Your task to perform on an android device: turn on javascript in the chrome app Image 0: 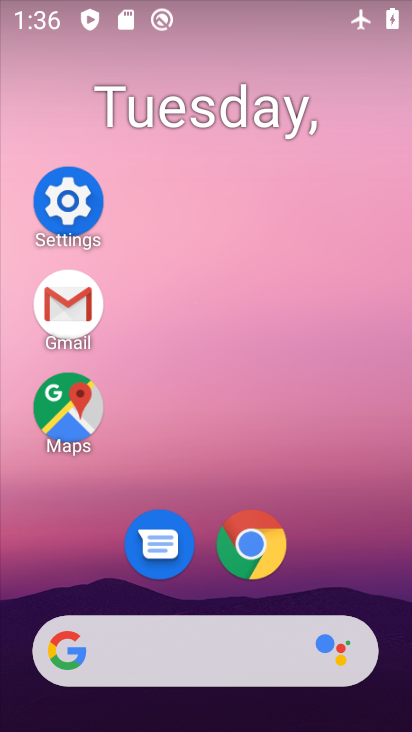
Step 0: click (270, 540)
Your task to perform on an android device: turn on javascript in the chrome app Image 1: 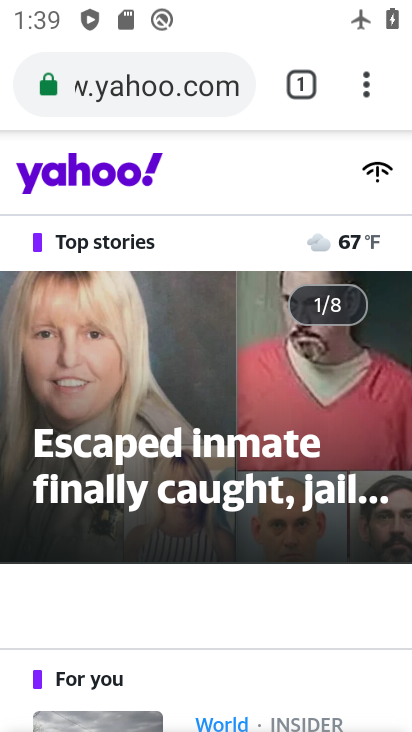
Step 1: click (360, 86)
Your task to perform on an android device: turn on javascript in the chrome app Image 2: 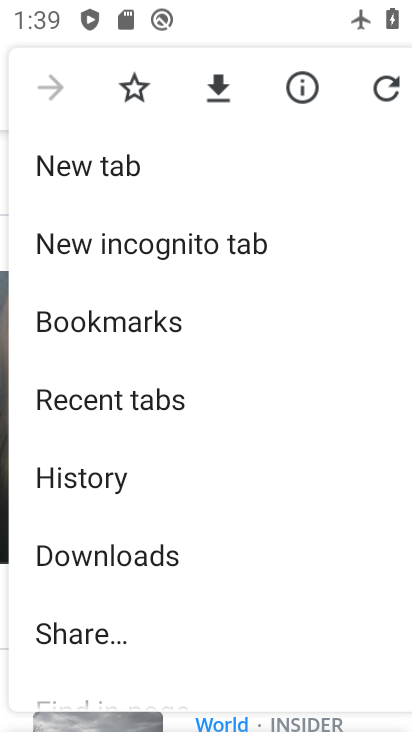
Step 2: drag from (275, 674) to (270, 196)
Your task to perform on an android device: turn on javascript in the chrome app Image 3: 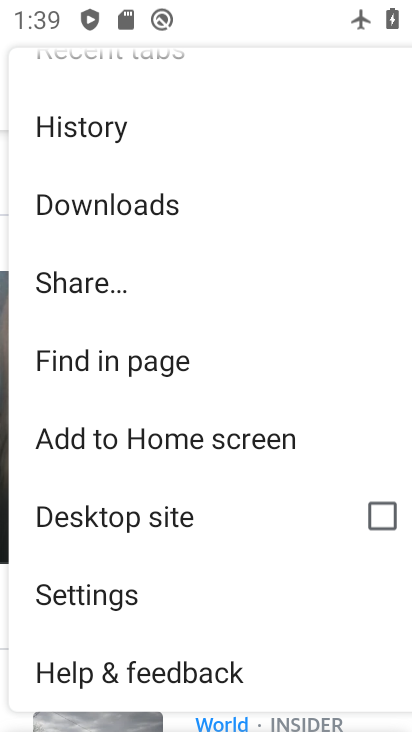
Step 3: click (225, 601)
Your task to perform on an android device: turn on javascript in the chrome app Image 4: 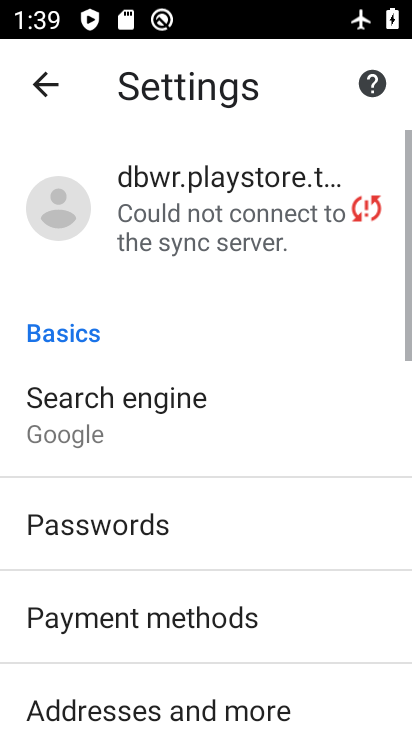
Step 4: drag from (236, 528) to (266, 177)
Your task to perform on an android device: turn on javascript in the chrome app Image 5: 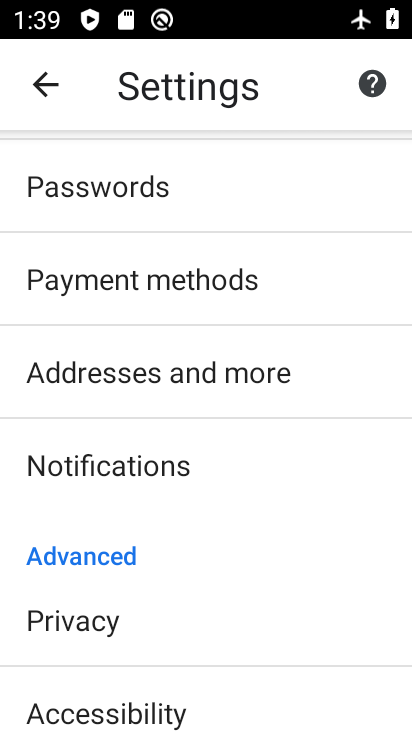
Step 5: drag from (262, 605) to (273, 129)
Your task to perform on an android device: turn on javascript in the chrome app Image 6: 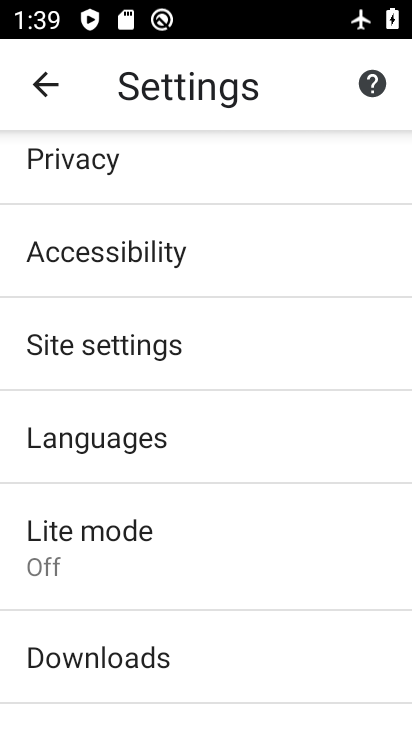
Step 6: click (188, 361)
Your task to perform on an android device: turn on javascript in the chrome app Image 7: 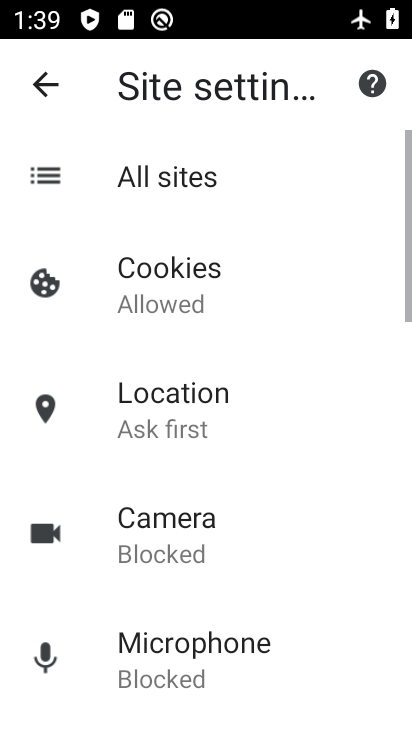
Step 7: drag from (228, 628) to (269, 237)
Your task to perform on an android device: turn on javascript in the chrome app Image 8: 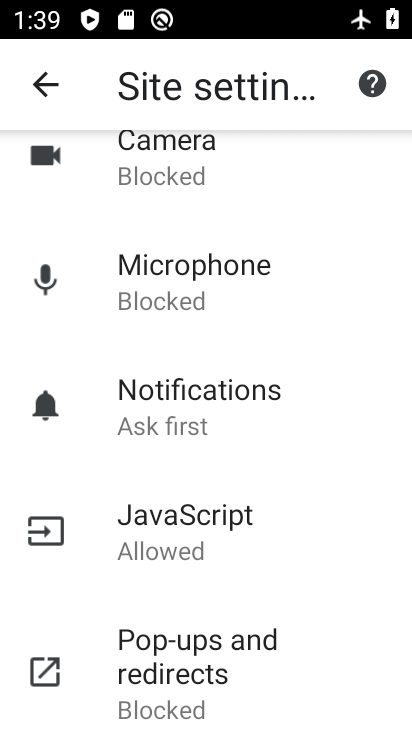
Step 8: click (256, 521)
Your task to perform on an android device: turn on javascript in the chrome app Image 9: 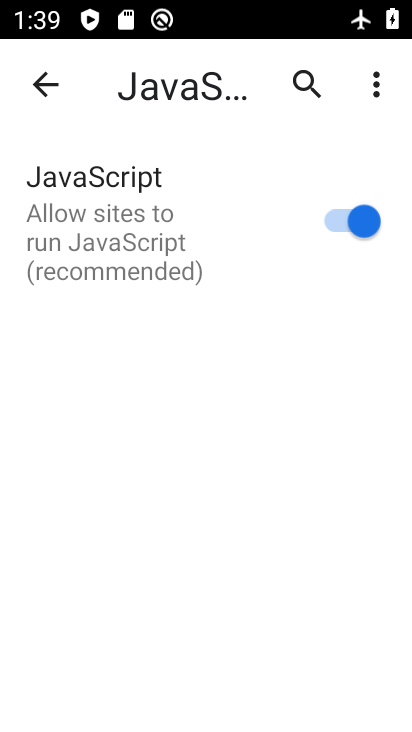
Step 9: task complete